Your task to perform on an android device: turn off location history Image 0: 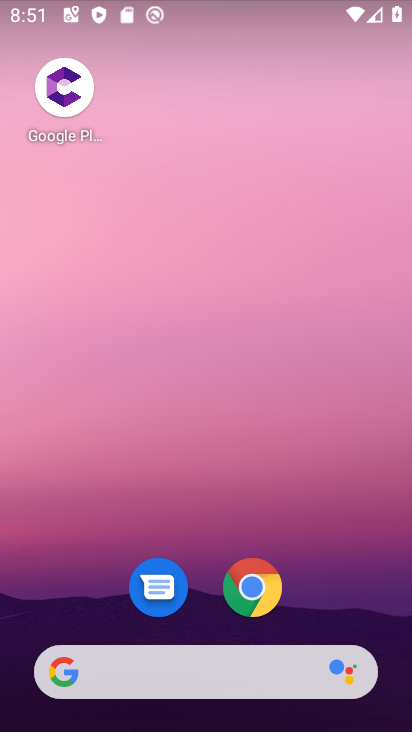
Step 0: drag from (212, 722) to (221, 124)
Your task to perform on an android device: turn off location history Image 1: 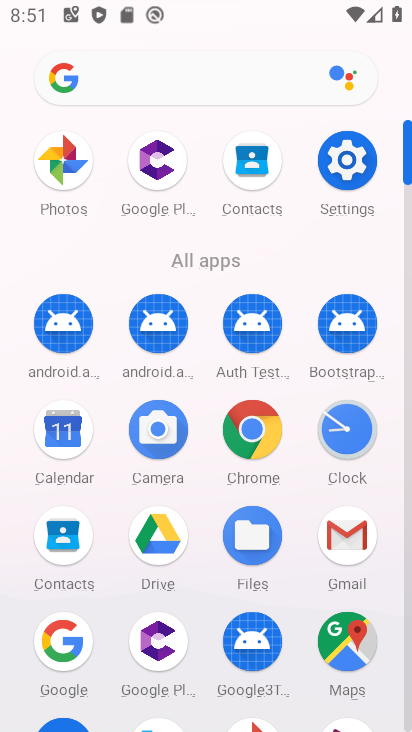
Step 1: click (349, 160)
Your task to perform on an android device: turn off location history Image 2: 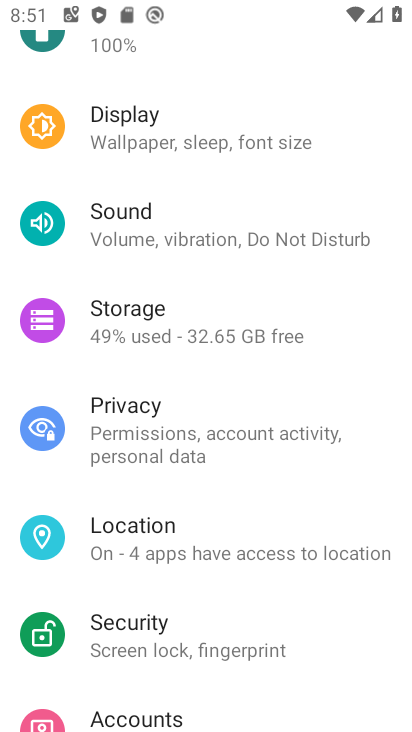
Step 2: click (139, 536)
Your task to perform on an android device: turn off location history Image 3: 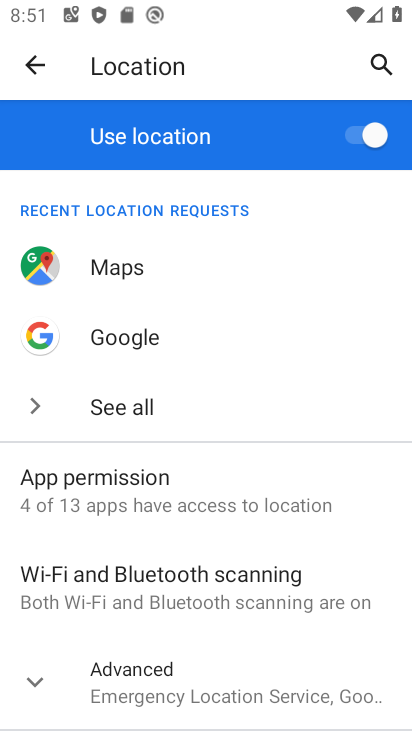
Step 3: click (129, 685)
Your task to perform on an android device: turn off location history Image 4: 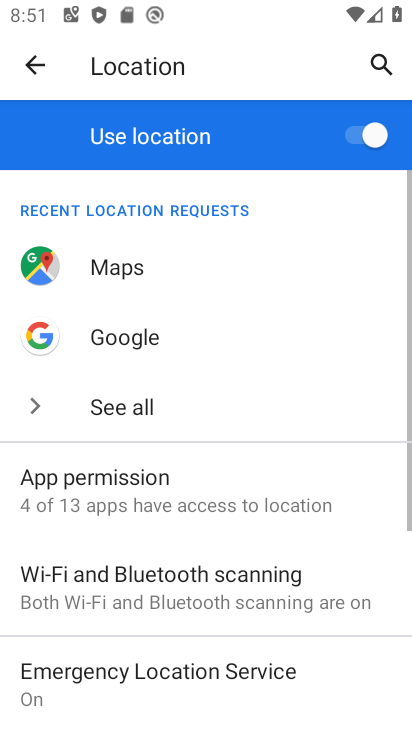
Step 4: drag from (211, 693) to (218, 413)
Your task to perform on an android device: turn off location history Image 5: 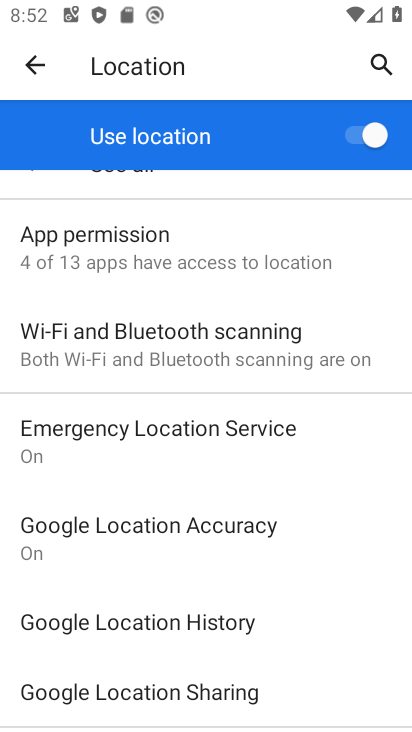
Step 5: click (128, 623)
Your task to perform on an android device: turn off location history Image 6: 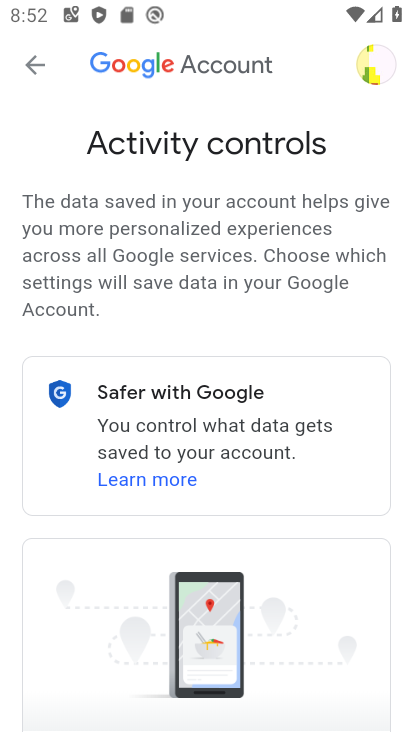
Step 6: drag from (181, 662) to (185, 261)
Your task to perform on an android device: turn off location history Image 7: 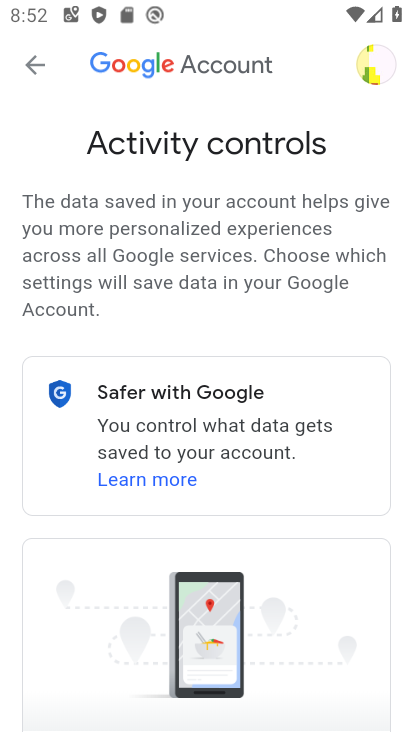
Step 7: drag from (208, 676) to (192, 253)
Your task to perform on an android device: turn off location history Image 8: 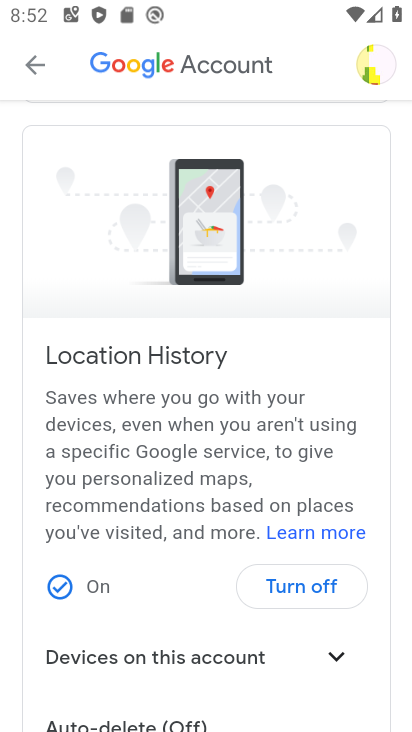
Step 8: click (322, 580)
Your task to perform on an android device: turn off location history Image 9: 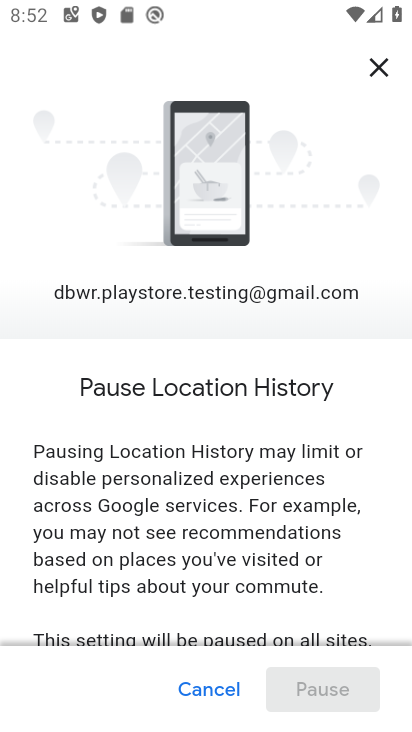
Step 9: drag from (284, 606) to (284, 265)
Your task to perform on an android device: turn off location history Image 10: 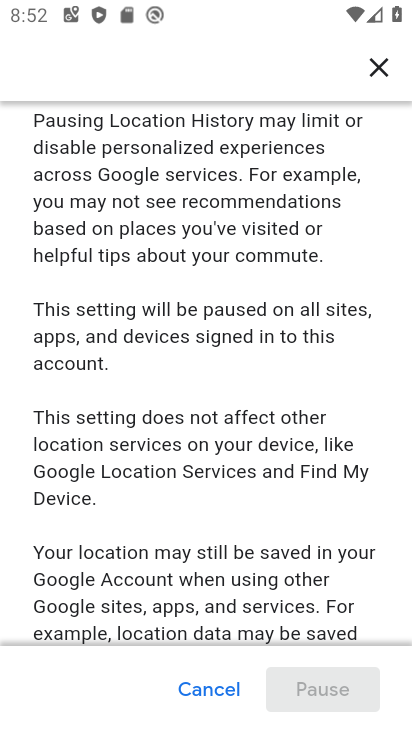
Step 10: drag from (263, 592) to (232, 165)
Your task to perform on an android device: turn off location history Image 11: 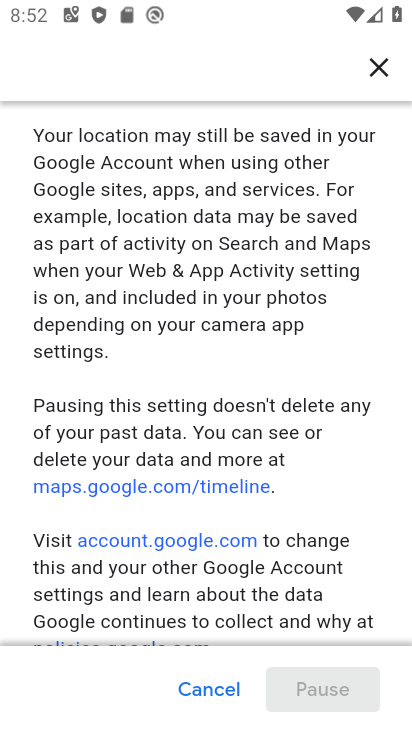
Step 11: drag from (261, 593) to (230, 98)
Your task to perform on an android device: turn off location history Image 12: 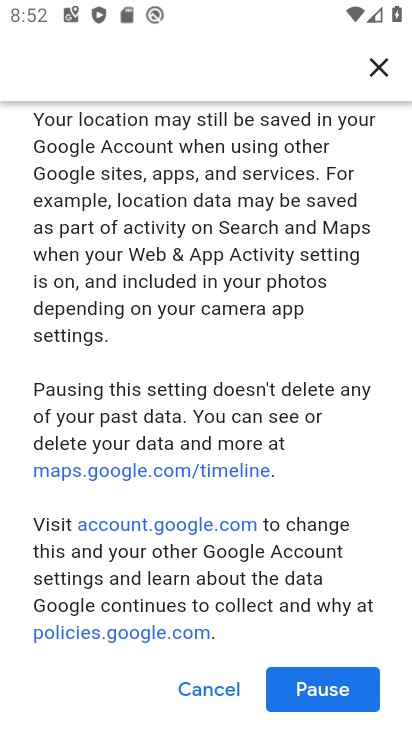
Step 12: click (315, 690)
Your task to perform on an android device: turn off location history Image 13: 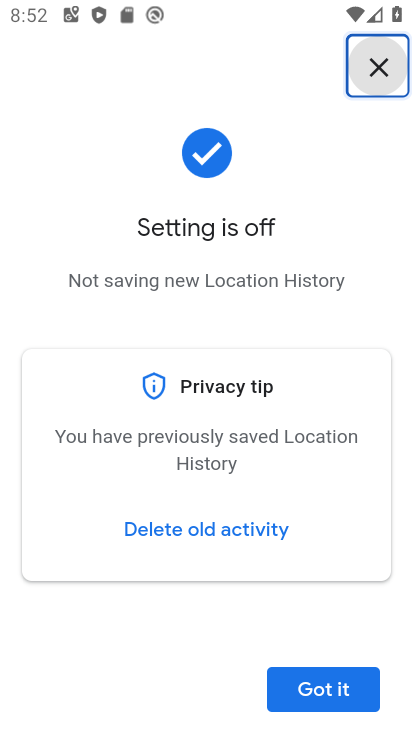
Step 13: click (315, 692)
Your task to perform on an android device: turn off location history Image 14: 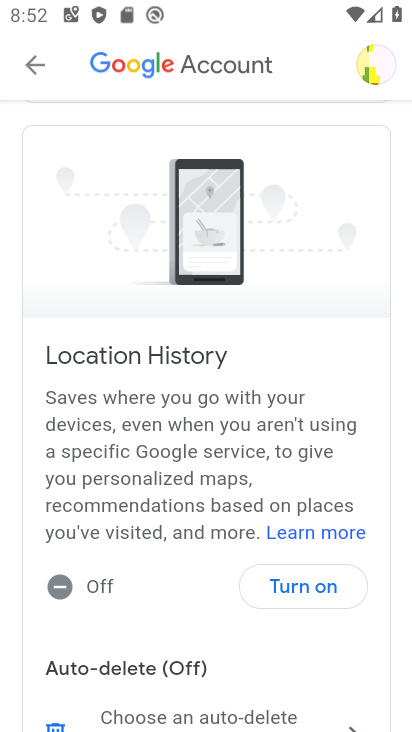
Step 14: task complete